Your task to perform on an android device: check storage Image 0: 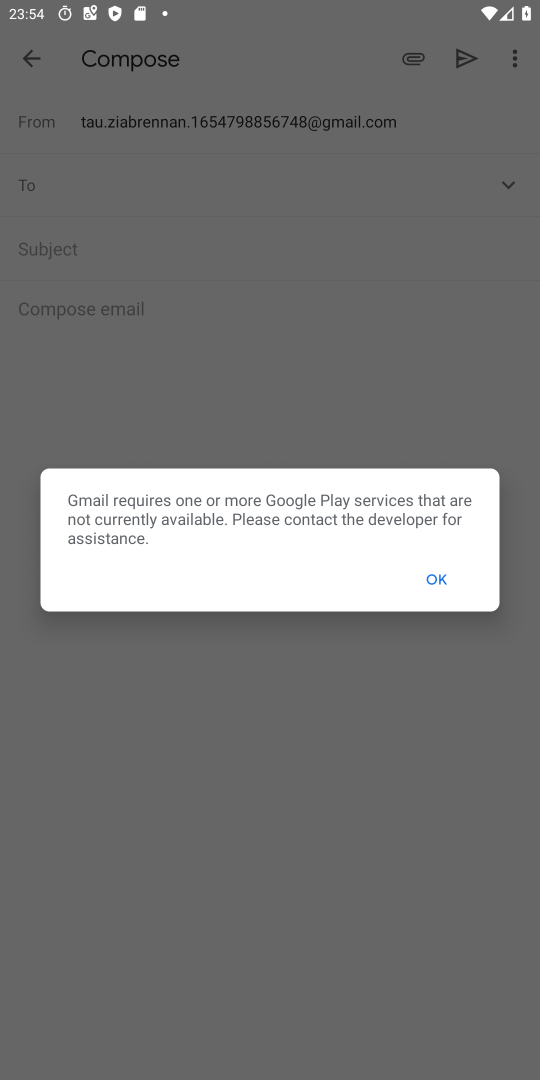
Step 0: press home button
Your task to perform on an android device: check storage Image 1: 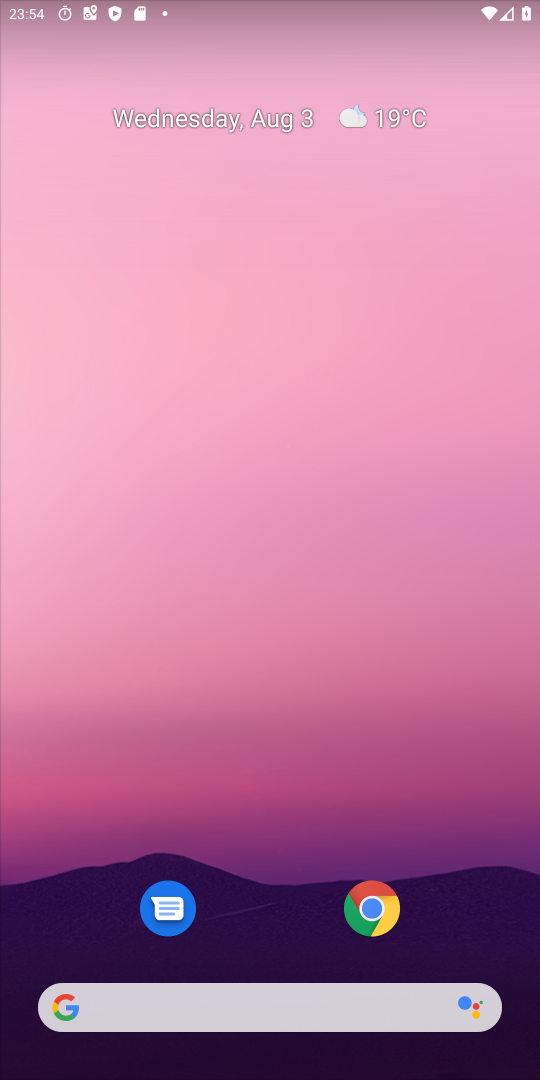
Step 1: drag from (302, 1032) to (205, 442)
Your task to perform on an android device: check storage Image 2: 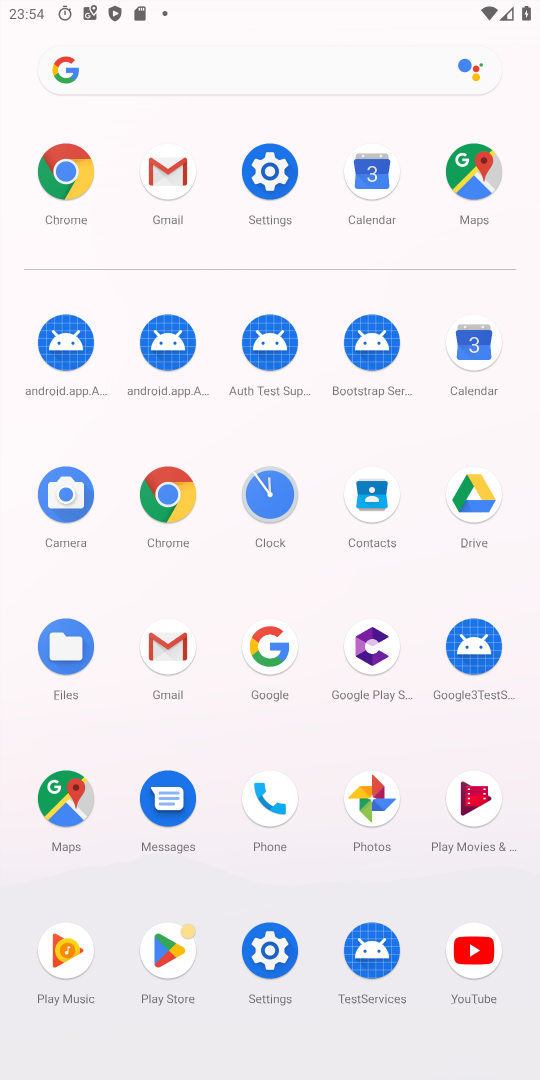
Step 2: click (260, 188)
Your task to perform on an android device: check storage Image 3: 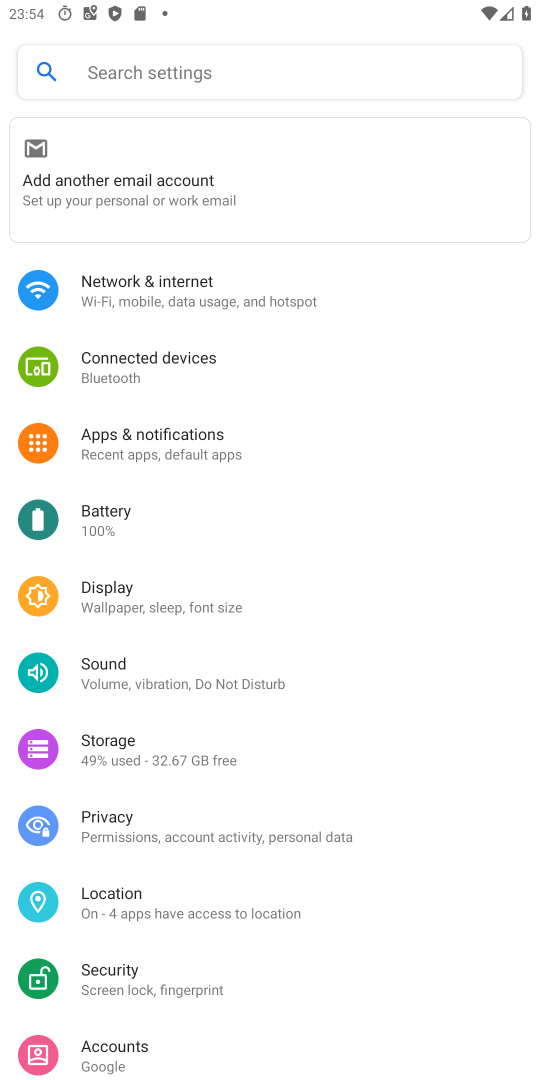
Step 3: click (189, 82)
Your task to perform on an android device: check storage Image 4: 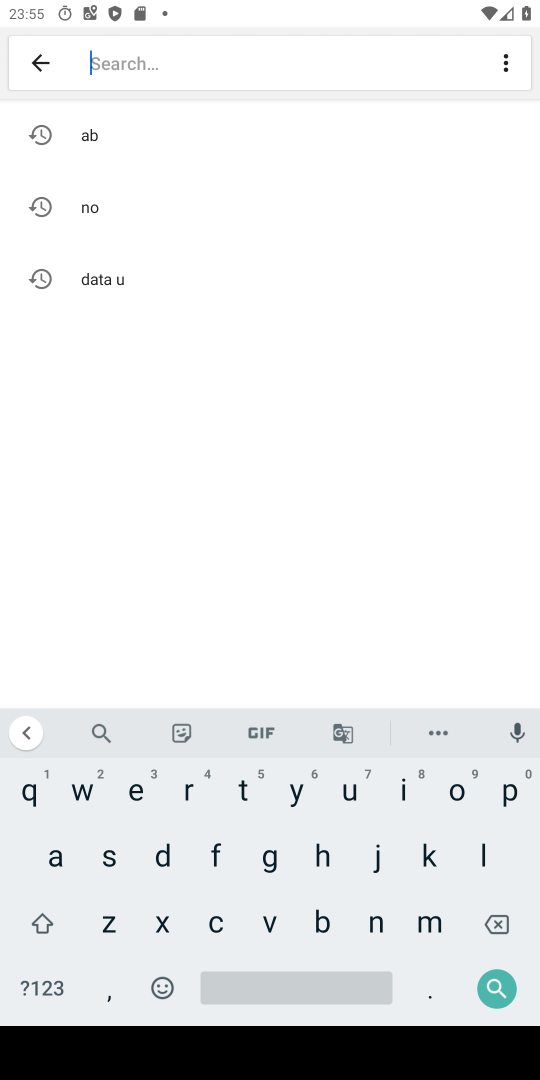
Step 4: click (111, 862)
Your task to perform on an android device: check storage Image 5: 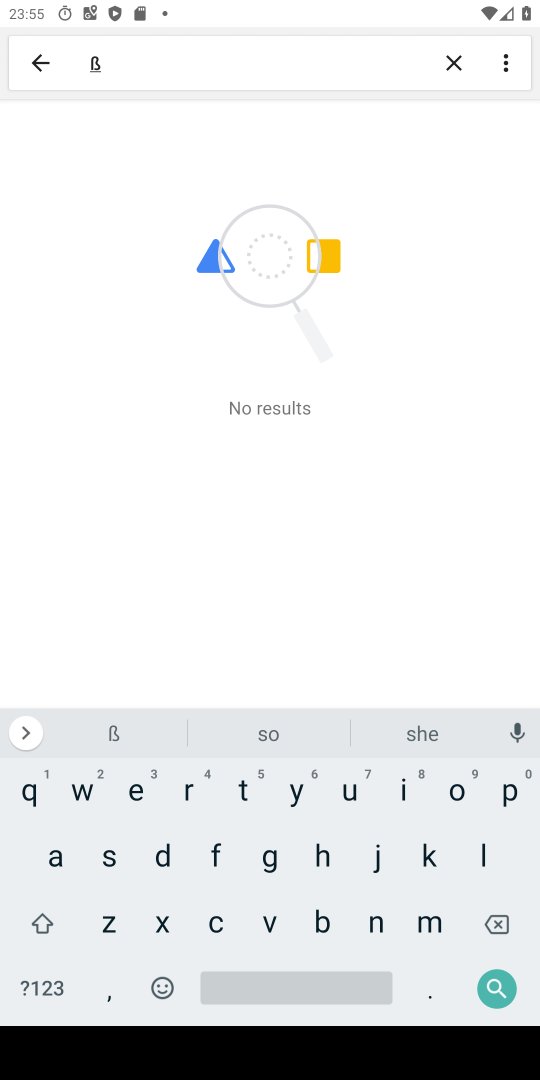
Step 5: click (468, 65)
Your task to perform on an android device: check storage Image 6: 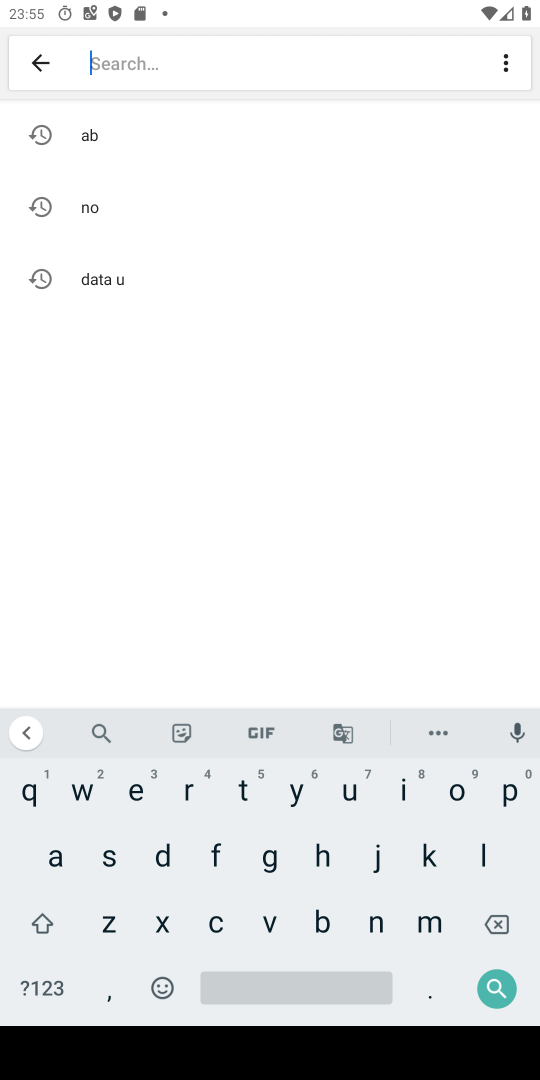
Step 6: click (103, 851)
Your task to perform on an android device: check storage Image 7: 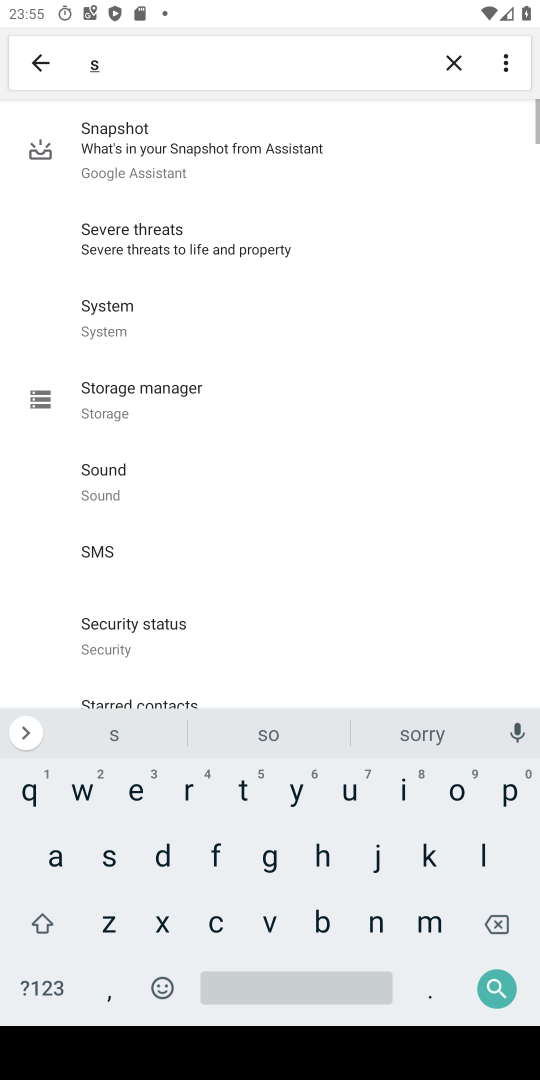
Step 7: click (240, 782)
Your task to perform on an android device: check storage Image 8: 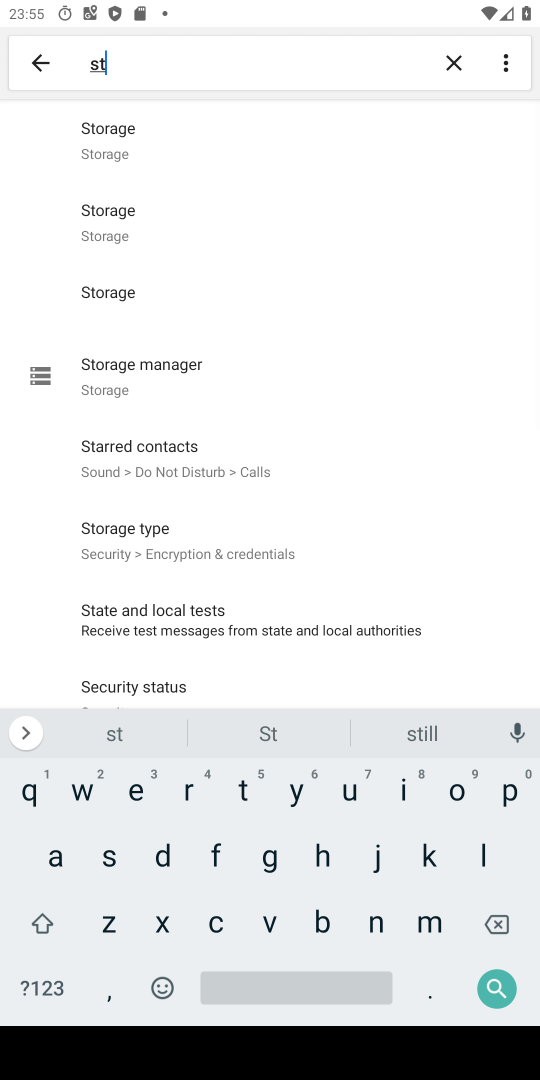
Step 8: click (126, 130)
Your task to perform on an android device: check storage Image 9: 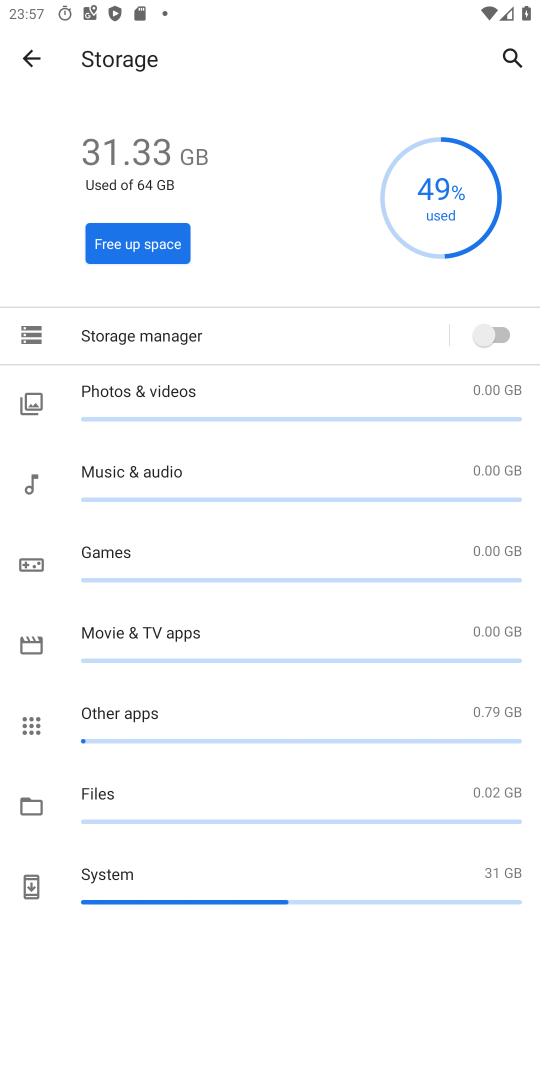
Step 9: task complete